Your task to perform on an android device: turn on sleep mode Image 0: 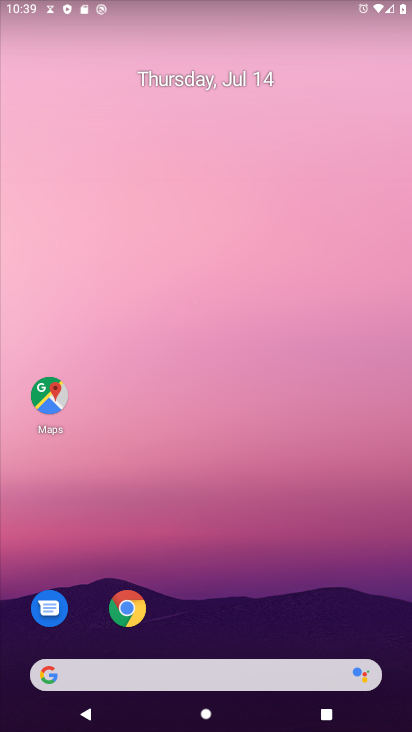
Step 0: drag from (248, 632) to (156, 23)
Your task to perform on an android device: turn on sleep mode Image 1: 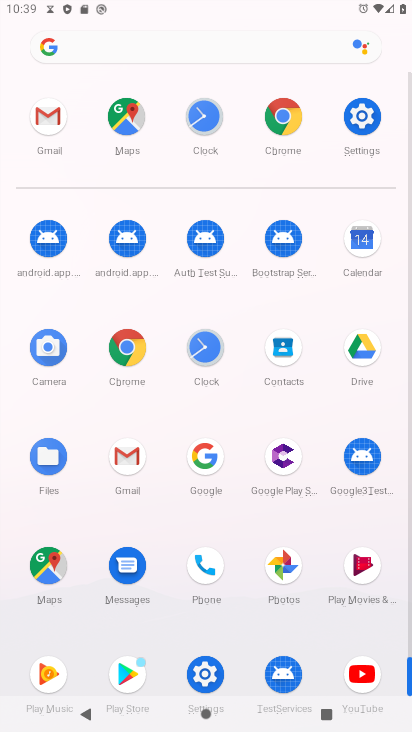
Step 1: click (205, 665)
Your task to perform on an android device: turn on sleep mode Image 2: 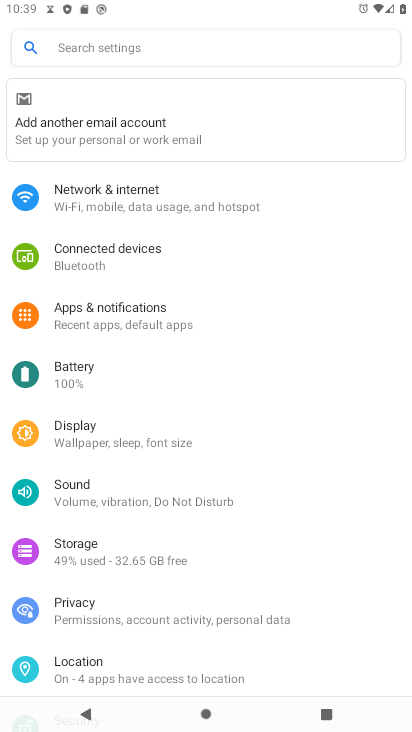
Step 2: click (205, 50)
Your task to perform on an android device: turn on sleep mode Image 3: 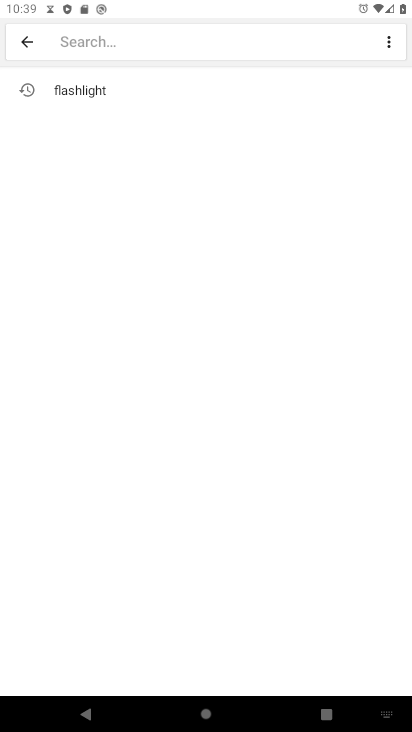
Step 3: type "sleep mode"
Your task to perform on an android device: turn on sleep mode Image 4: 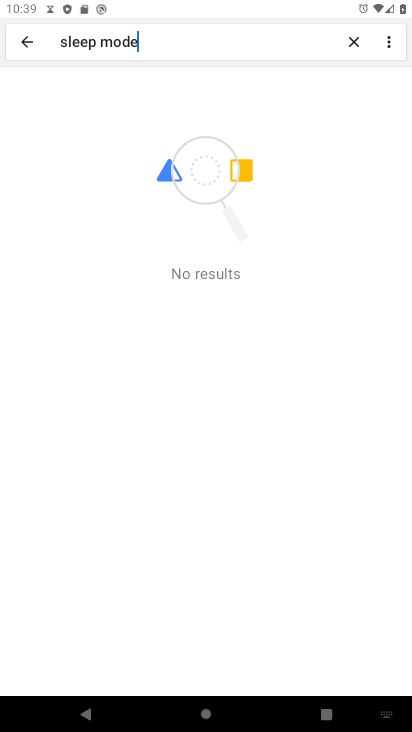
Step 4: task complete